Your task to perform on an android device: check data usage Image 0: 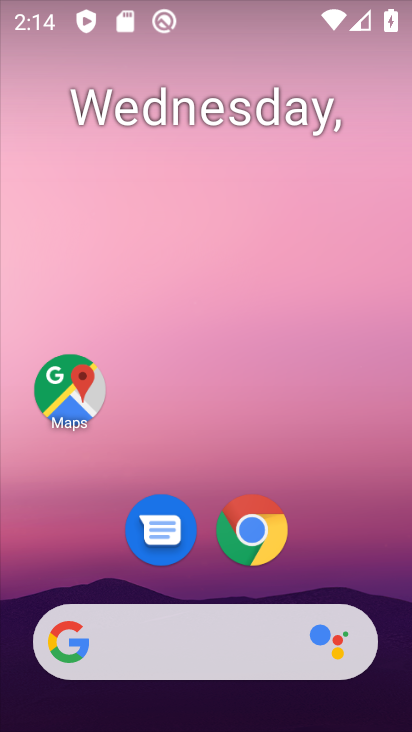
Step 0: drag from (201, 617) to (149, 47)
Your task to perform on an android device: check data usage Image 1: 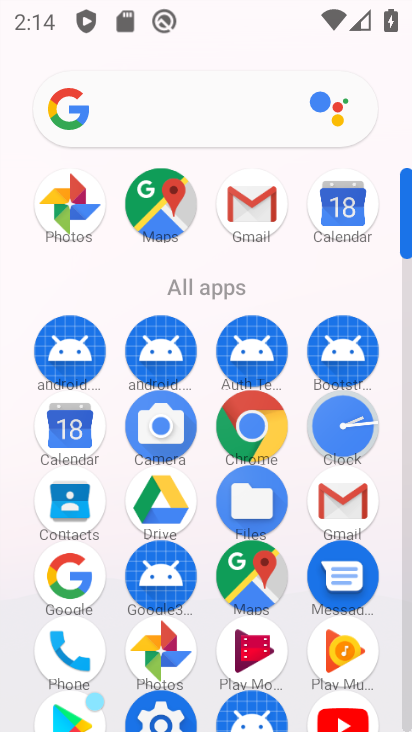
Step 1: drag from (313, 665) to (293, 49)
Your task to perform on an android device: check data usage Image 2: 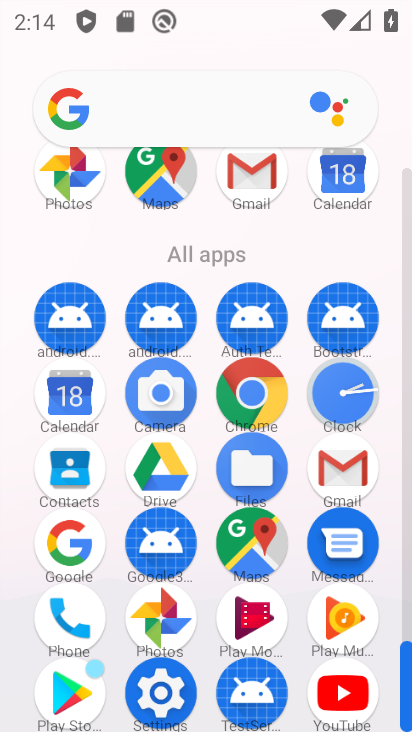
Step 2: click (177, 671)
Your task to perform on an android device: check data usage Image 3: 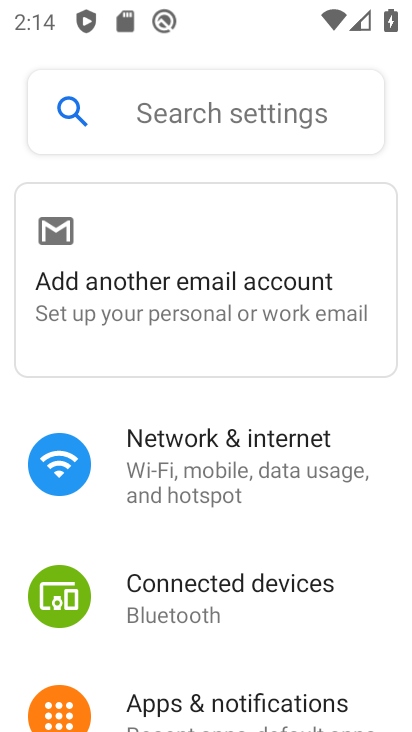
Step 3: drag from (177, 671) to (187, 248)
Your task to perform on an android device: check data usage Image 4: 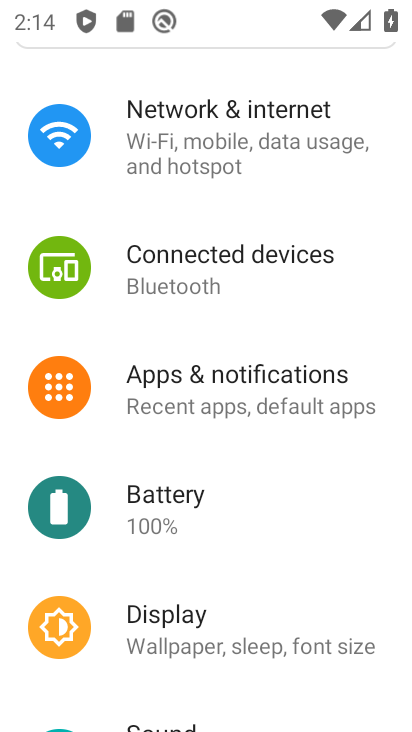
Step 4: click (184, 126)
Your task to perform on an android device: check data usage Image 5: 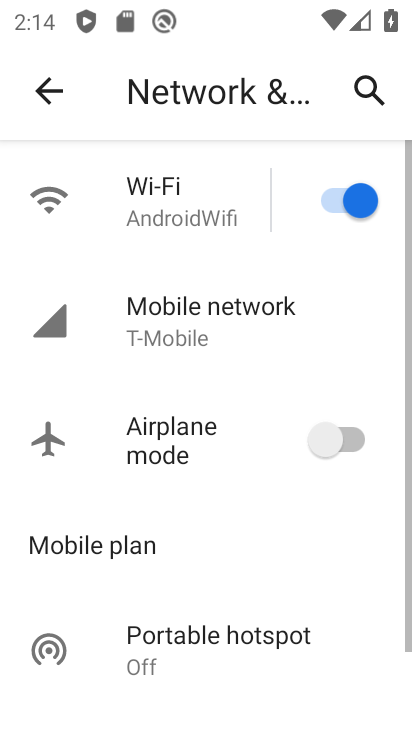
Step 5: click (228, 317)
Your task to perform on an android device: check data usage Image 6: 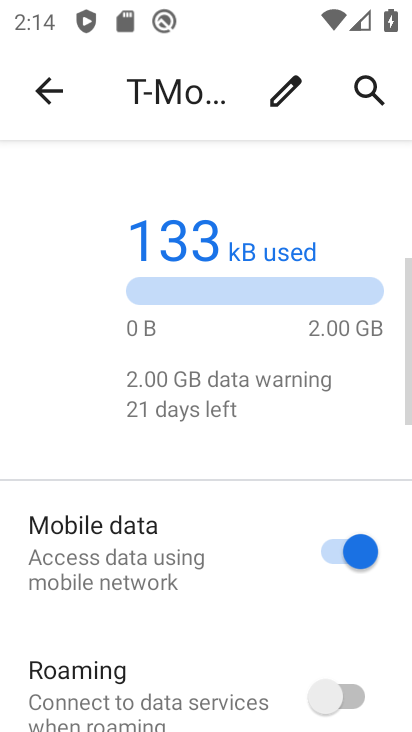
Step 6: task complete